Your task to perform on an android device: manage bookmarks in the chrome app Image 0: 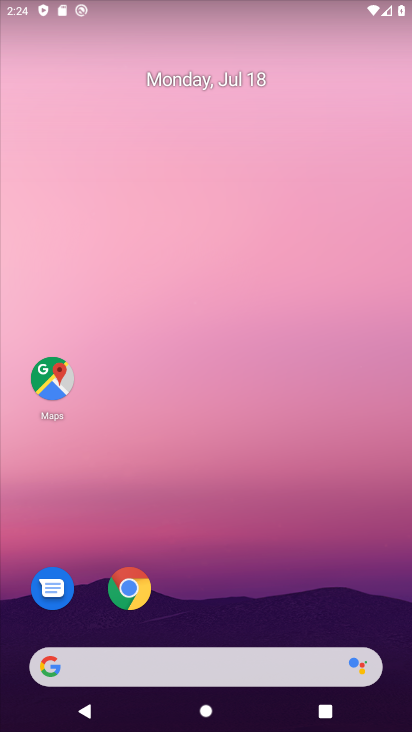
Step 0: drag from (234, 457) to (224, 29)
Your task to perform on an android device: manage bookmarks in the chrome app Image 1: 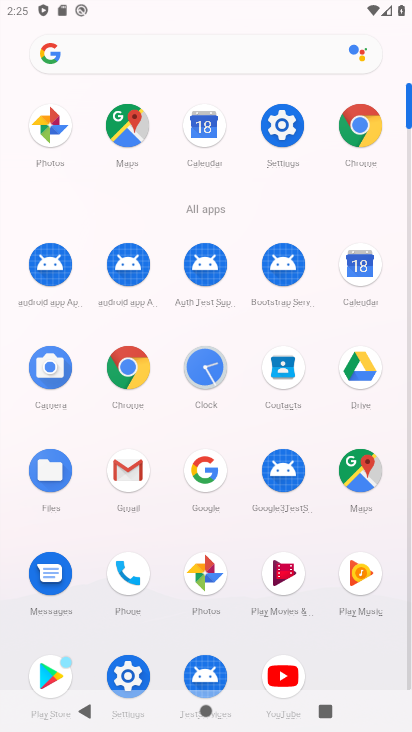
Step 1: click (372, 123)
Your task to perform on an android device: manage bookmarks in the chrome app Image 2: 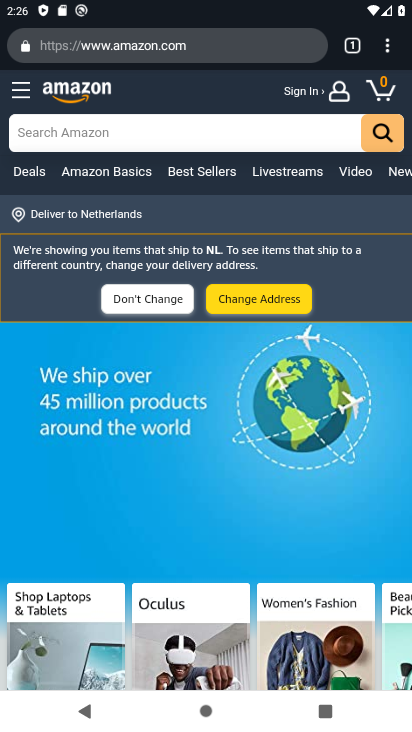
Step 2: drag from (385, 55) to (245, 185)
Your task to perform on an android device: manage bookmarks in the chrome app Image 3: 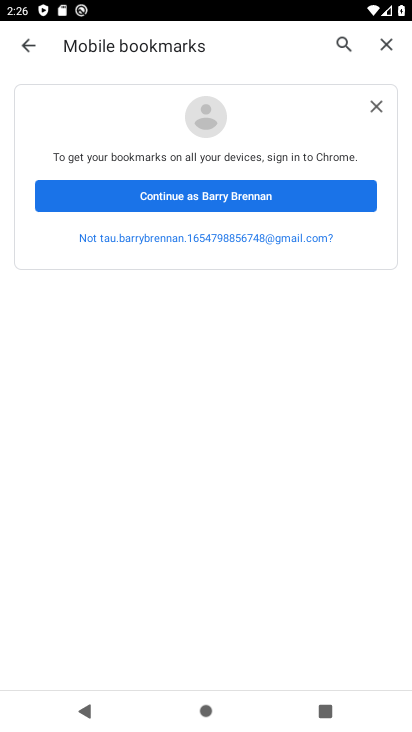
Step 3: click (139, 199)
Your task to perform on an android device: manage bookmarks in the chrome app Image 4: 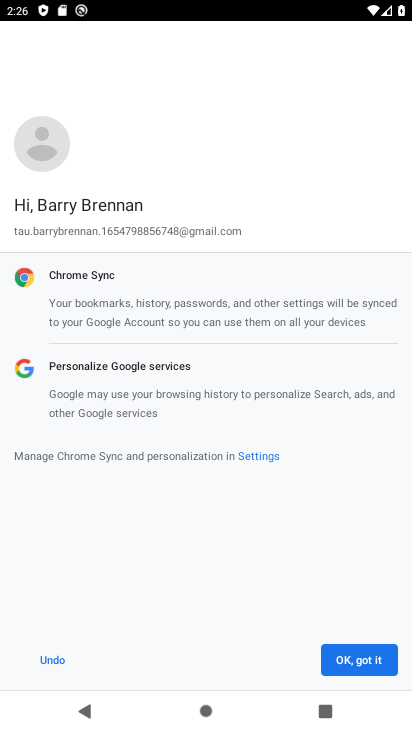
Step 4: click (392, 661)
Your task to perform on an android device: manage bookmarks in the chrome app Image 5: 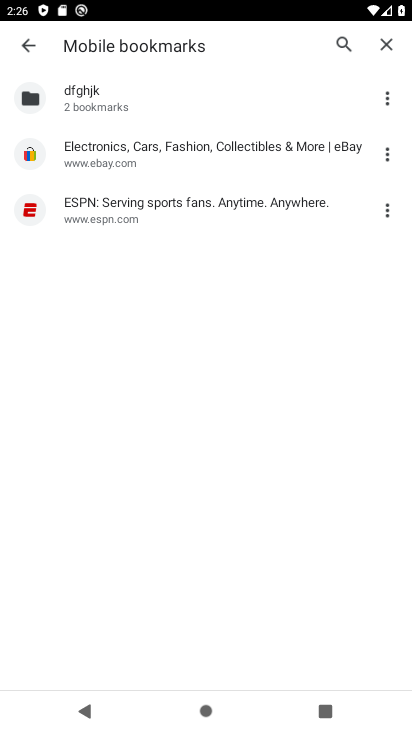
Step 5: click (375, 96)
Your task to perform on an android device: manage bookmarks in the chrome app Image 6: 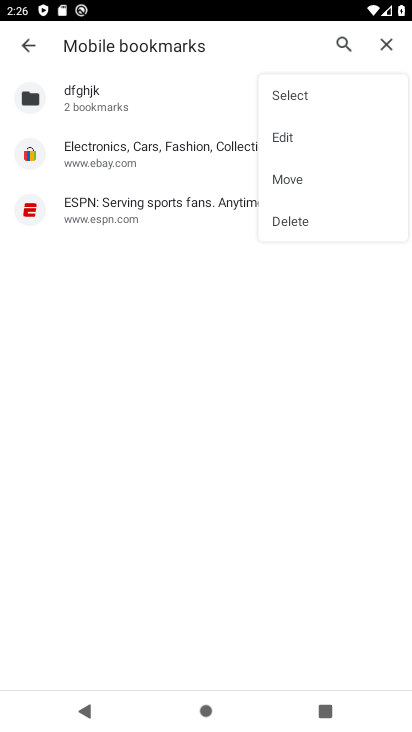
Step 6: click (276, 218)
Your task to perform on an android device: manage bookmarks in the chrome app Image 7: 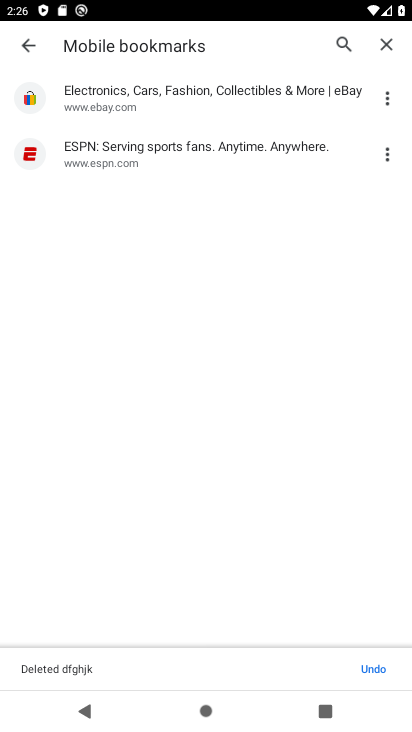
Step 7: task complete